Your task to perform on an android device: Search for Mexican restaurants on Maps Image 0: 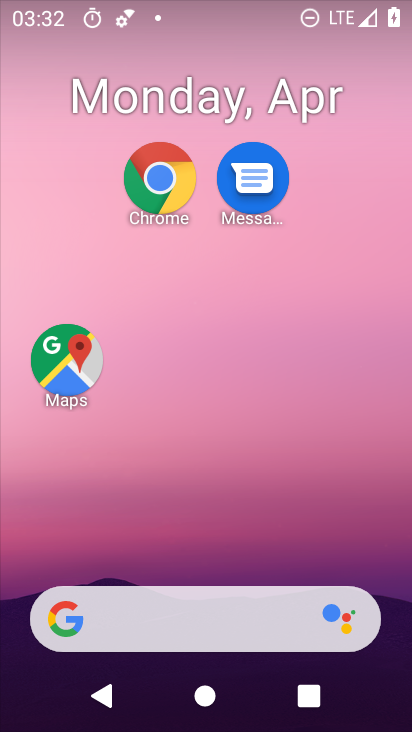
Step 0: drag from (201, 591) to (200, 20)
Your task to perform on an android device: Search for Mexican restaurants on Maps Image 1: 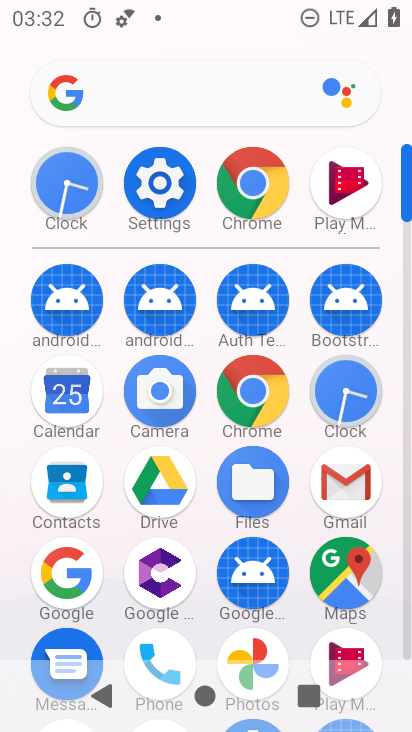
Step 1: click (348, 572)
Your task to perform on an android device: Search for Mexican restaurants on Maps Image 2: 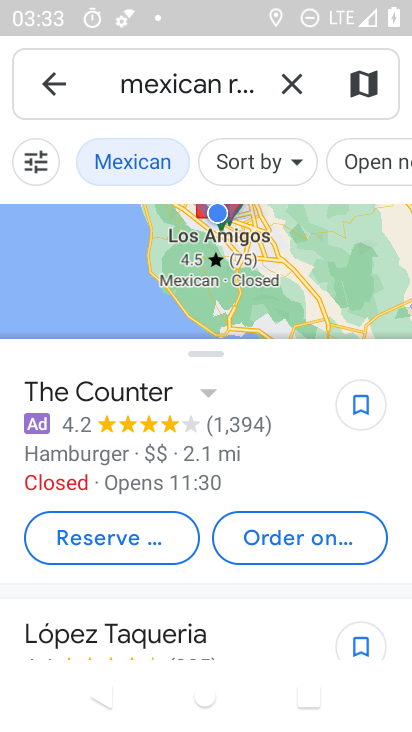
Step 2: task complete